Your task to perform on an android device: delete location history Image 0: 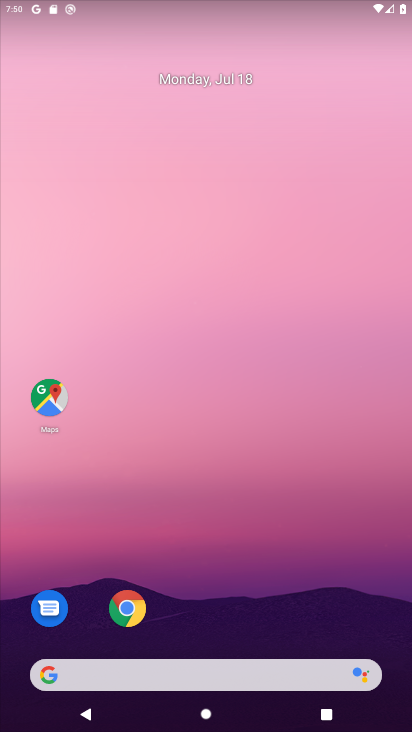
Step 0: drag from (191, 655) to (186, 110)
Your task to perform on an android device: delete location history Image 1: 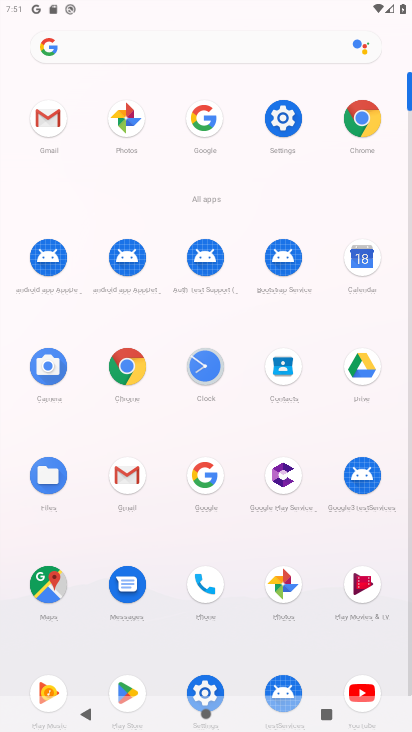
Step 1: click (54, 600)
Your task to perform on an android device: delete location history Image 2: 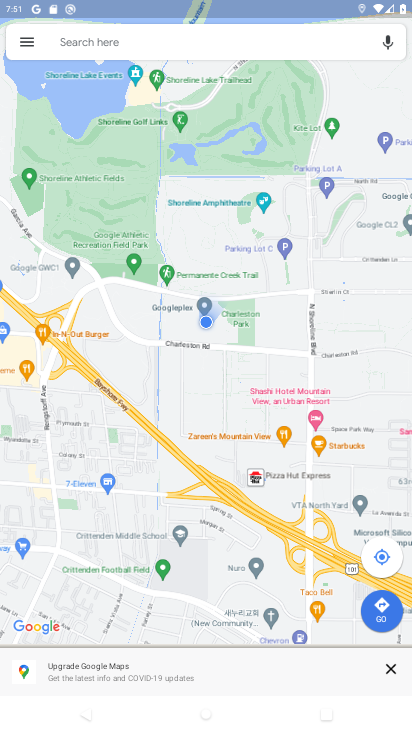
Step 2: click (21, 39)
Your task to perform on an android device: delete location history Image 3: 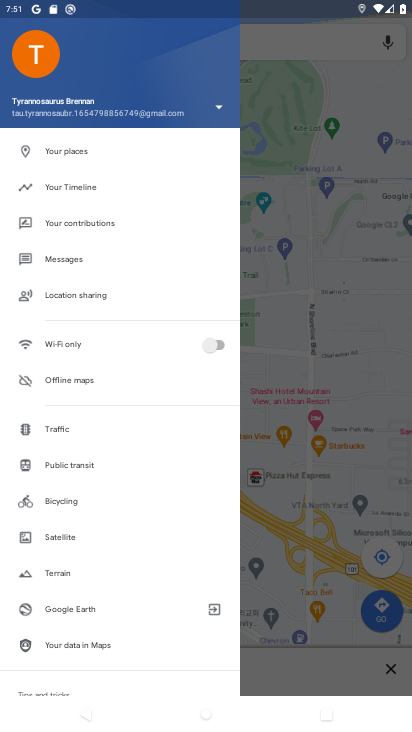
Step 3: drag from (65, 533) to (59, 149)
Your task to perform on an android device: delete location history Image 4: 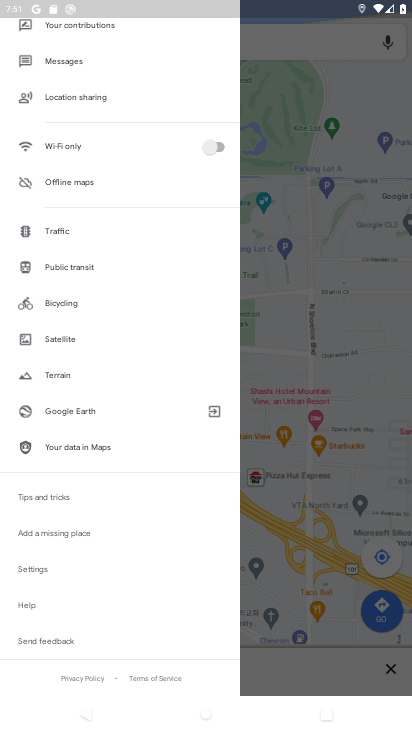
Step 4: drag from (35, 570) to (29, 184)
Your task to perform on an android device: delete location history Image 5: 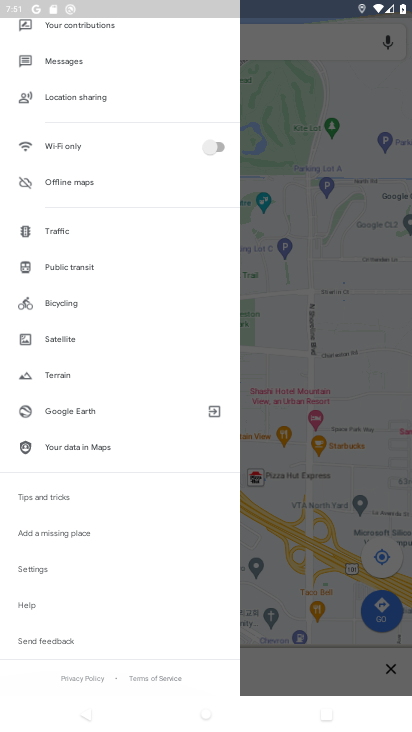
Step 5: drag from (37, 154) to (2, 694)
Your task to perform on an android device: delete location history Image 6: 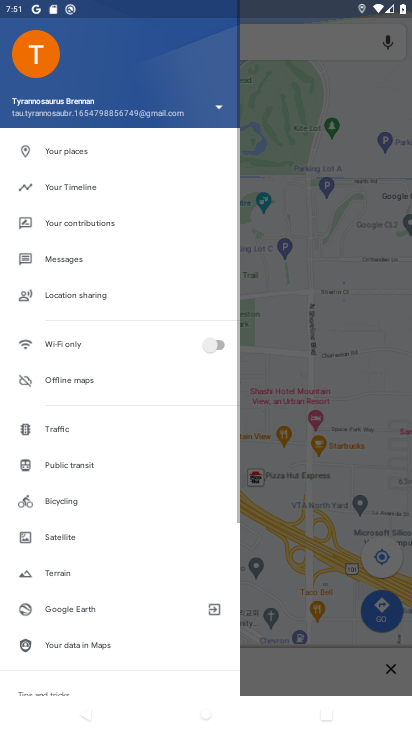
Step 6: click (62, 186)
Your task to perform on an android device: delete location history Image 7: 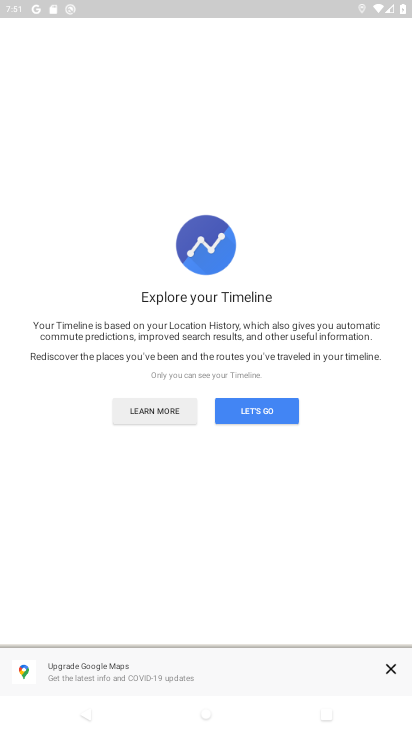
Step 7: click (256, 403)
Your task to perform on an android device: delete location history Image 8: 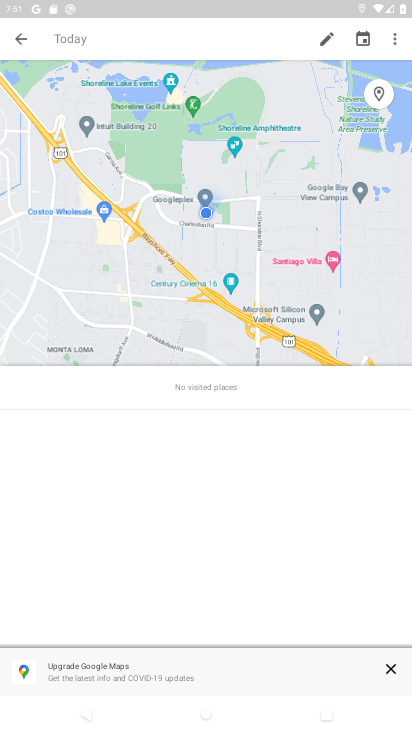
Step 8: click (393, 46)
Your task to perform on an android device: delete location history Image 9: 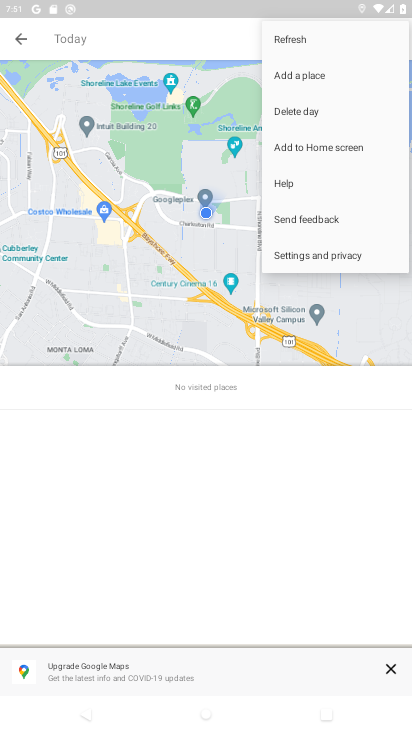
Step 9: click (299, 250)
Your task to perform on an android device: delete location history Image 10: 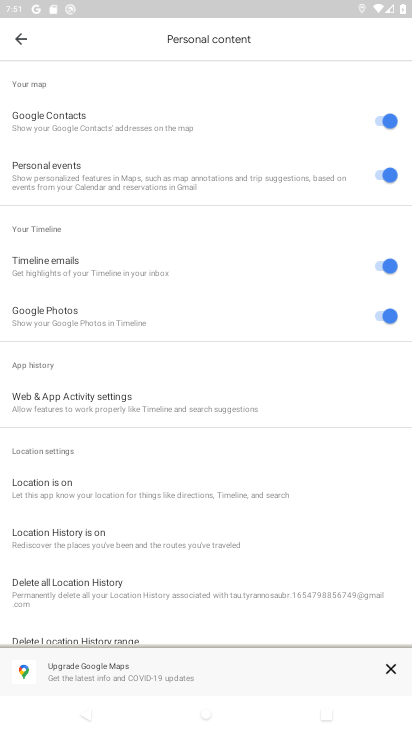
Step 10: click (115, 581)
Your task to perform on an android device: delete location history Image 11: 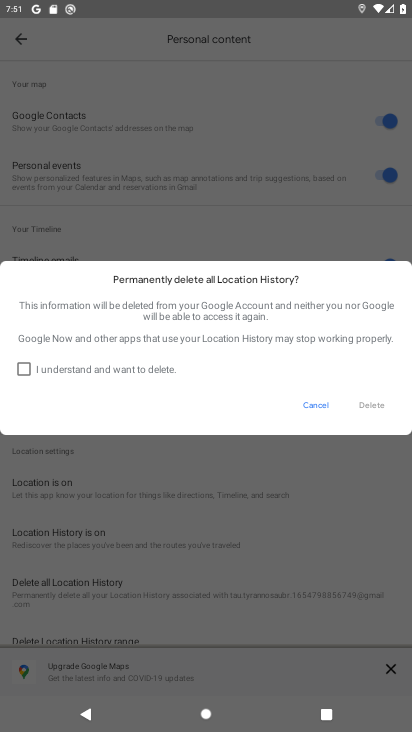
Step 11: click (30, 370)
Your task to perform on an android device: delete location history Image 12: 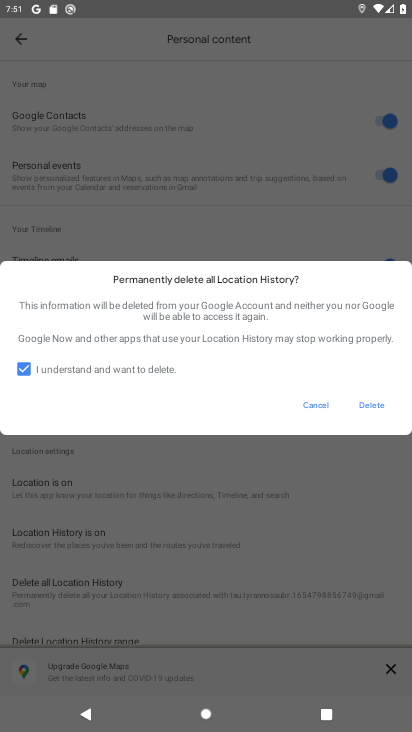
Step 12: click (372, 403)
Your task to perform on an android device: delete location history Image 13: 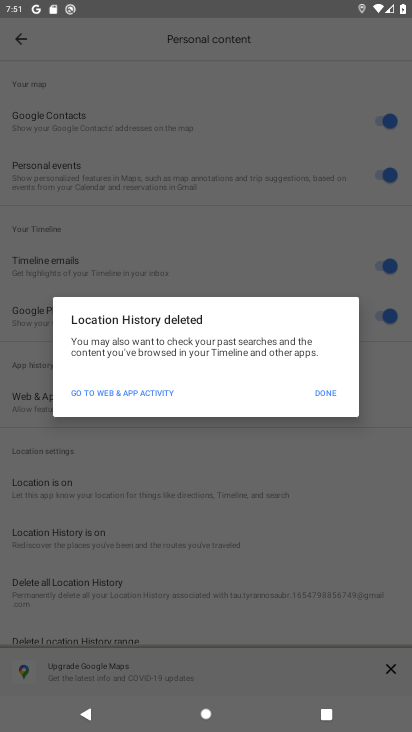
Step 13: click (330, 388)
Your task to perform on an android device: delete location history Image 14: 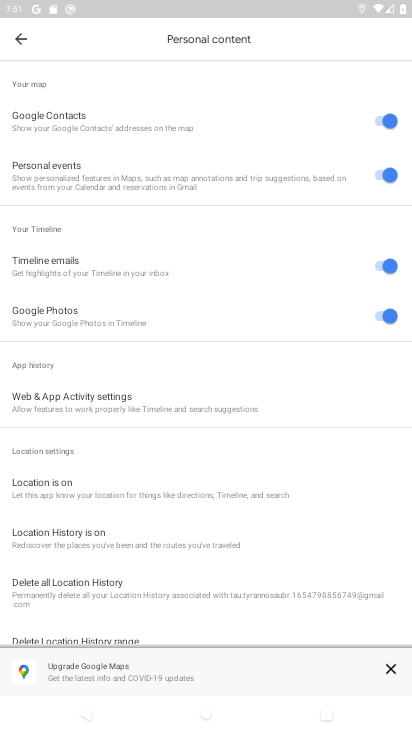
Step 14: task complete